Your task to perform on an android device: check the backup settings in the google photos Image 0: 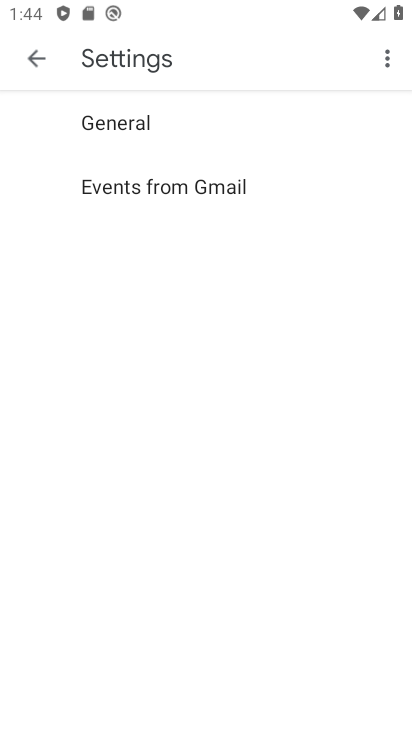
Step 0: click (27, 53)
Your task to perform on an android device: check the backup settings in the google photos Image 1: 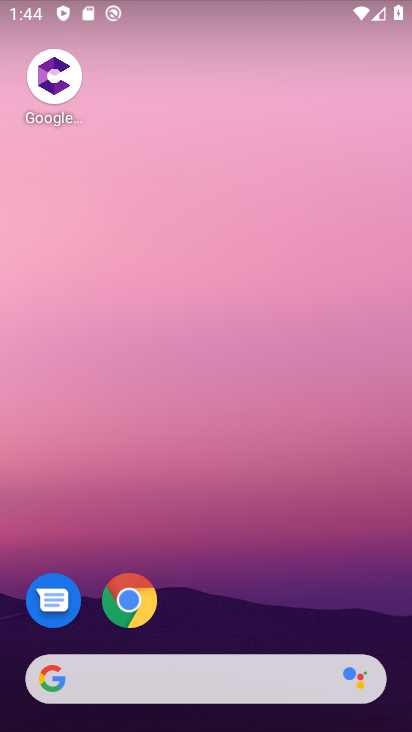
Step 1: drag from (237, 459) to (197, 1)
Your task to perform on an android device: check the backup settings in the google photos Image 2: 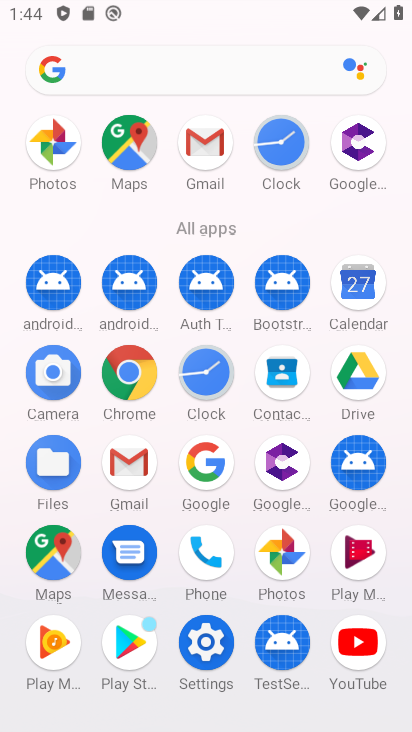
Step 2: drag from (9, 497) to (7, 196)
Your task to perform on an android device: check the backup settings in the google photos Image 3: 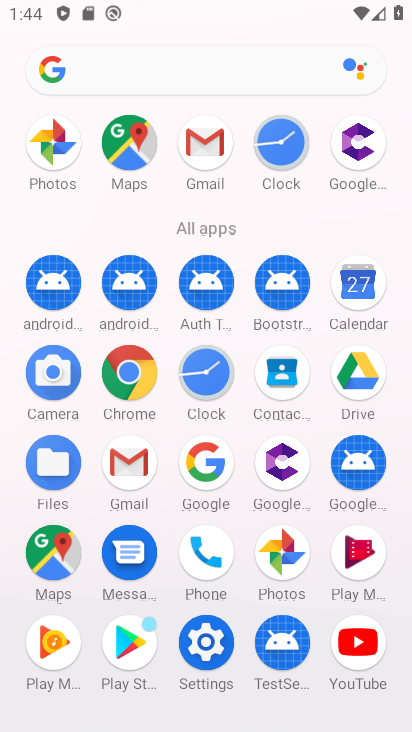
Step 3: click (56, 141)
Your task to perform on an android device: check the backup settings in the google photos Image 4: 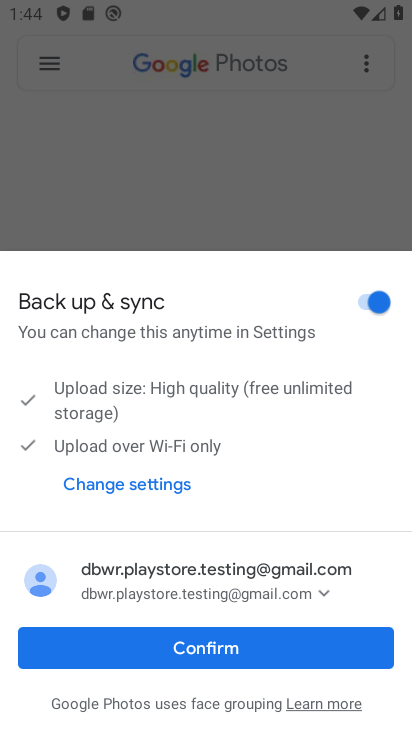
Step 4: click (207, 644)
Your task to perform on an android device: check the backup settings in the google photos Image 5: 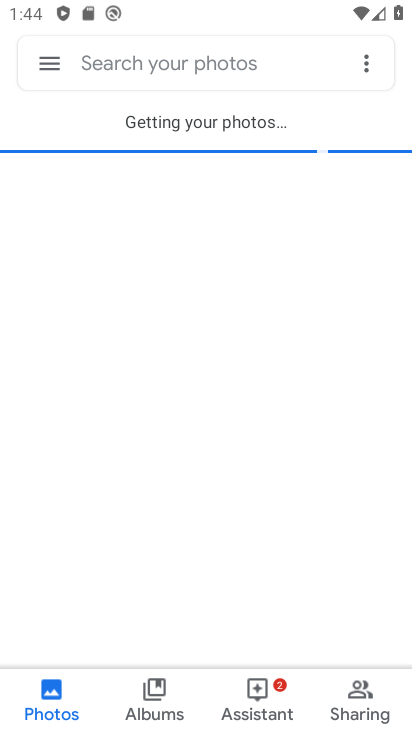
Step 5: click (64, 690)
Your task to perform on an android device: check the backup settings in the google photos Image 6: 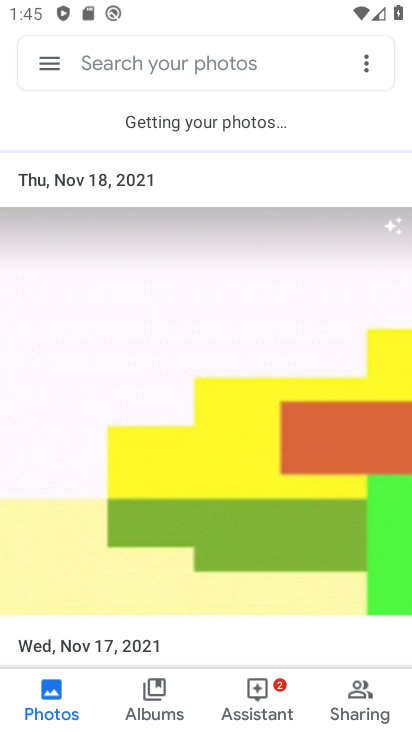
Step 6: click (43, 59)
Your task to perform on an android device: check the backup settings in the google photos Image 7: 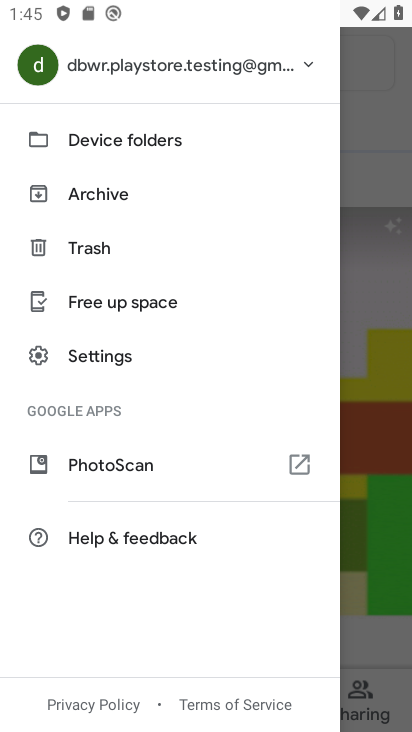
Step 7: click (133, 361)
Your task to perform on an android device: check the backup settings in the google photos Image 8: 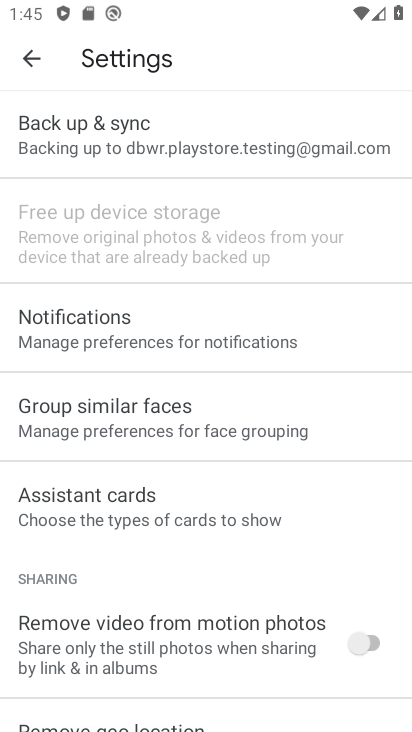
Step 8: click (175, 163)
Your task to perform on an android device: check the backup settings in the google photos Image 9: 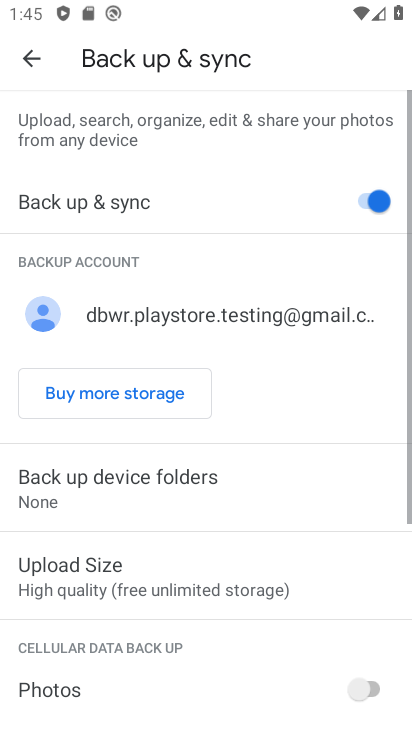
Step 9: task complete